Your task to perform on an android device: Open accessibility settings Image 0: 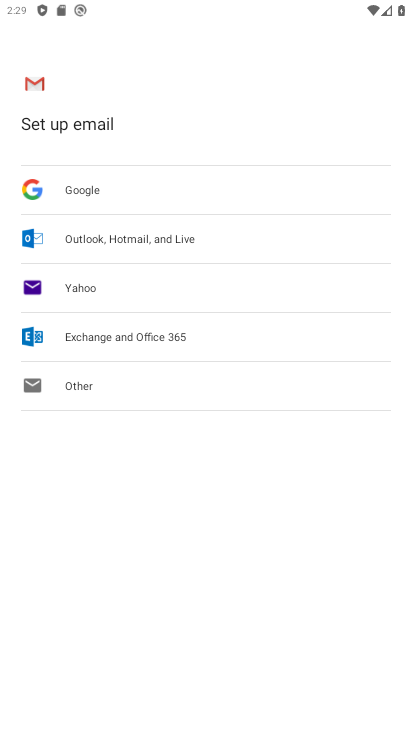
Step 0: press home button
Your task to perform on an android device: Open accessibility settings Image 1: 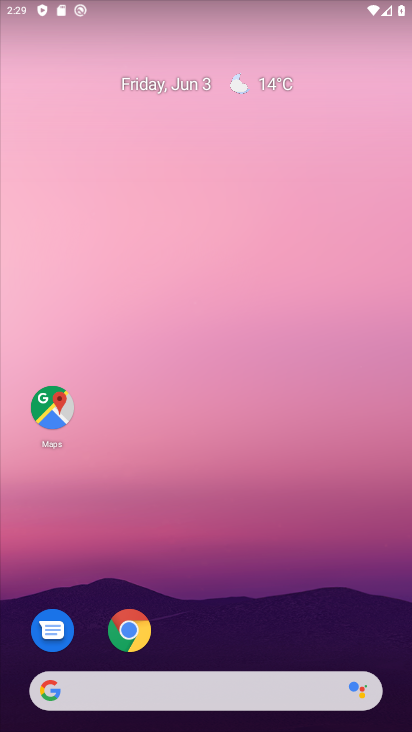
Step 1: drag from (245, 616) to (168, 203)
Your task to perform on an android device: Open accessibility settings Image 2: 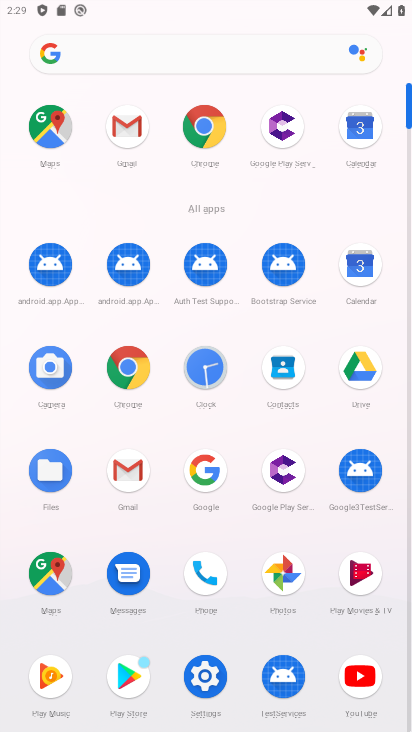
Step 2: click (207, 686)
Your task to perform on an android device: Open accessibility settings Image 3: 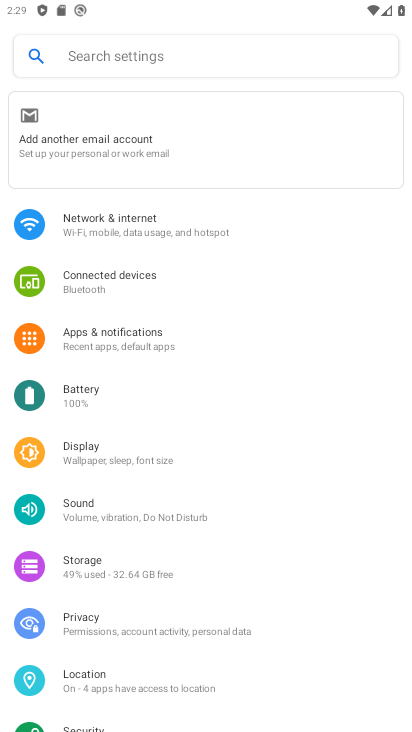
Step 3: drag from (192, 693) to (193, 268)
Your task to perform on an android device: Open accessibility settings Image 4: 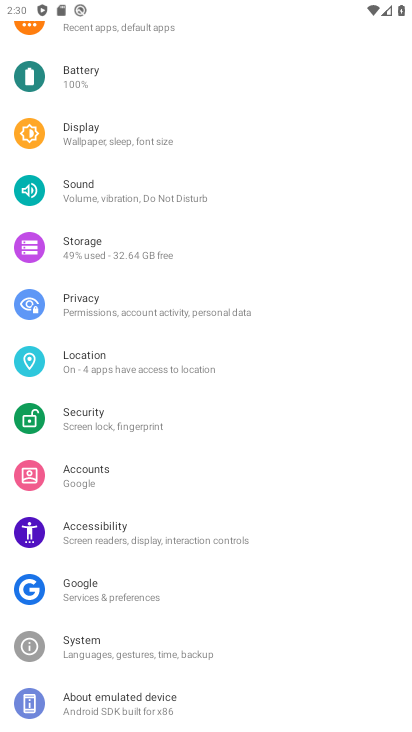
Step 4: click (174, 542)
Your task to perform on an android device: Open accessibility settings Image 5: 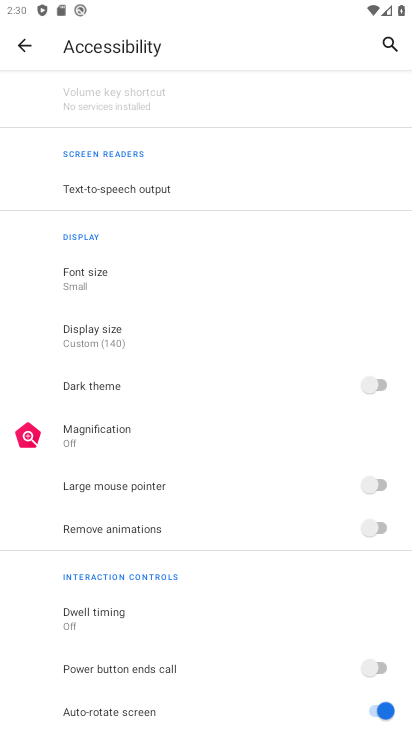
Step 5: task complete